Your task to perform on an android device: toggle notifications settings in the gmail app Image 0: 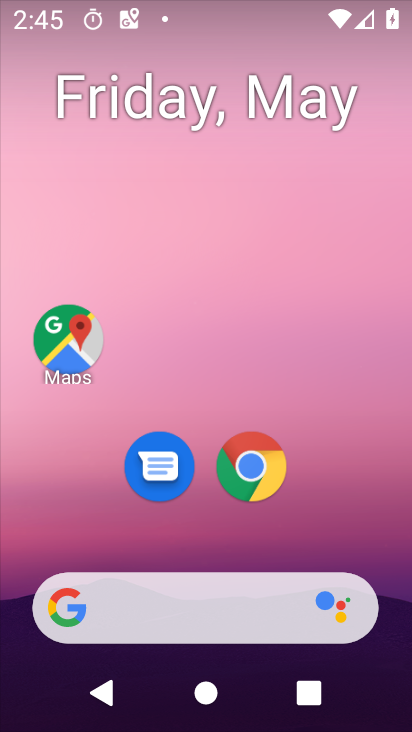
Step 0: drag from (373, 540) to (401, 10)
Your task to perform on an android device: toggle notifications settings in the gmail app Image 1: 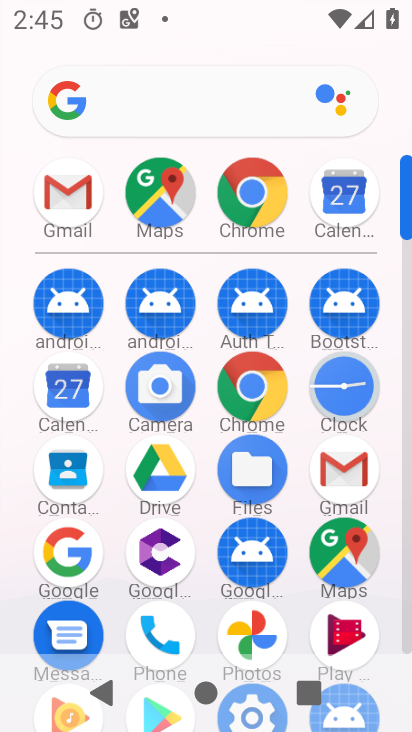
Step 1: click (362, 487)
Your task to perform on an android device: toggle notifications settings in the gmail app Image 2: 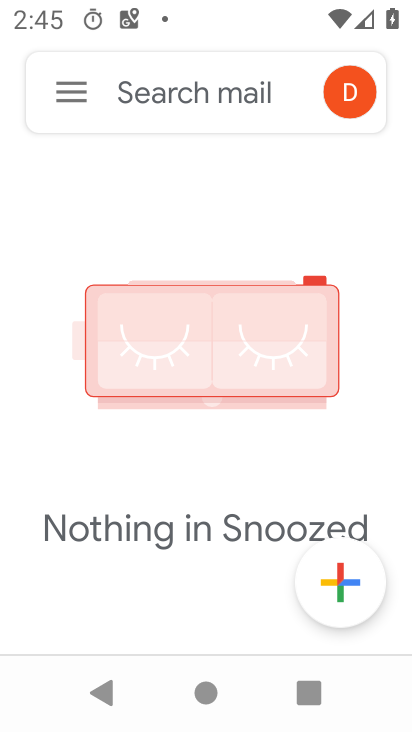
Step 2: click (60, 101)
Your task to perform on an android device: toggle notifications settings in the gmail app Image 3: 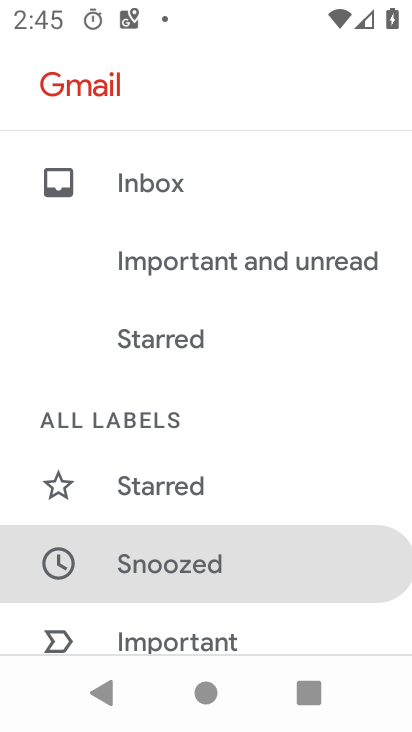
Step 3: drag from (204, 567) to (268, 206)
Your task to perform on an android device: toggle notifications settings in the gmail app Image 4: 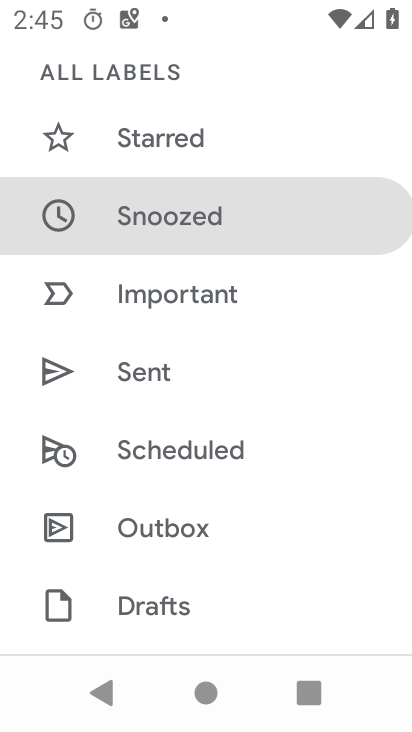
Step 4: drag from (186, 533) to (269, 107)
Your task to perform on an android device: toggle notifications settings in the gmail app Image 5: 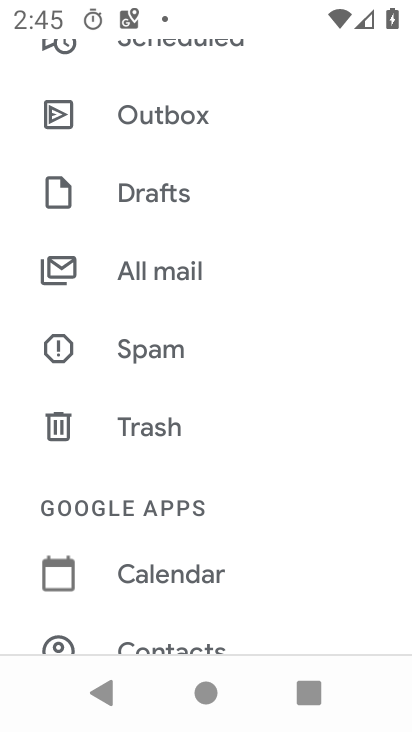
Step 5: drag from (189, 522) to (253, 115)
Your task to perform on an android device: toggle notifications settings in the gmail app Image 6: 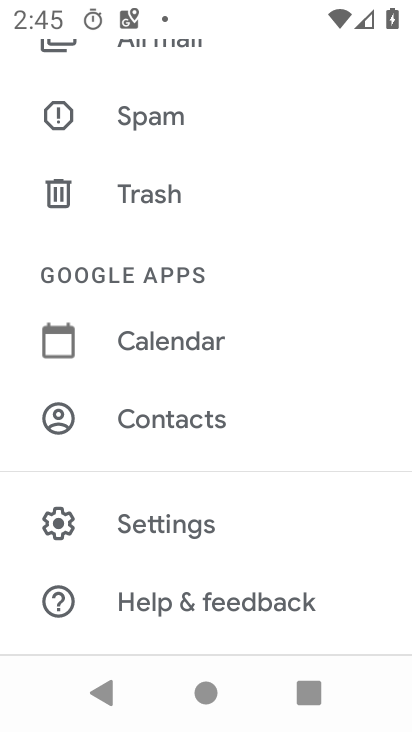
Step 6: click (163, 520)
Your task to perform on an android device: toggle notifications settings in the gmail app Image 7: 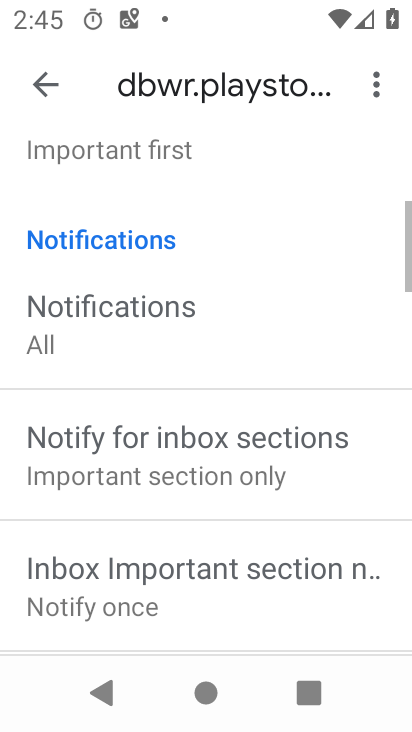
Step 7: click (110, 313)
Your task to perform on an android device: toggle notifications settings in the gmail app Image 8: 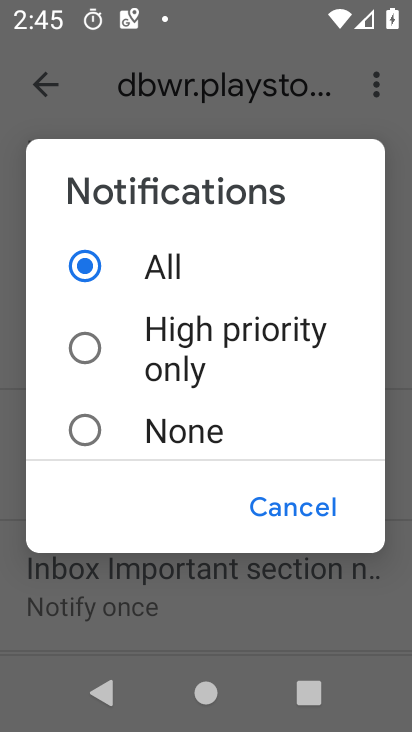
Step 8: click (94, 350)
Your task to perform on an android device: toggle notifications settings in the gmail app Image 9: 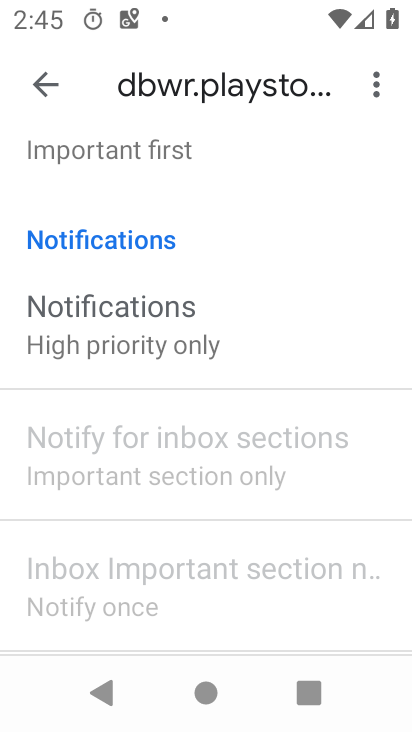
Step 9: task complete